Your task to perform on an android device: delete location history Image 0: 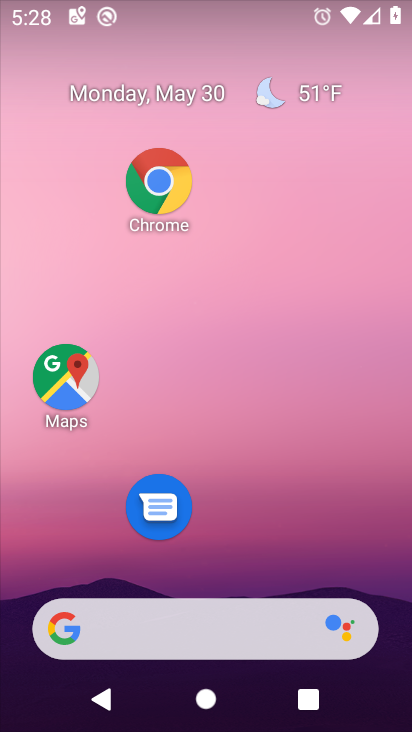
Step 0: drag from (356, 537) to (206, 3)
Your task to perform on an android device: delete location history Image 1: 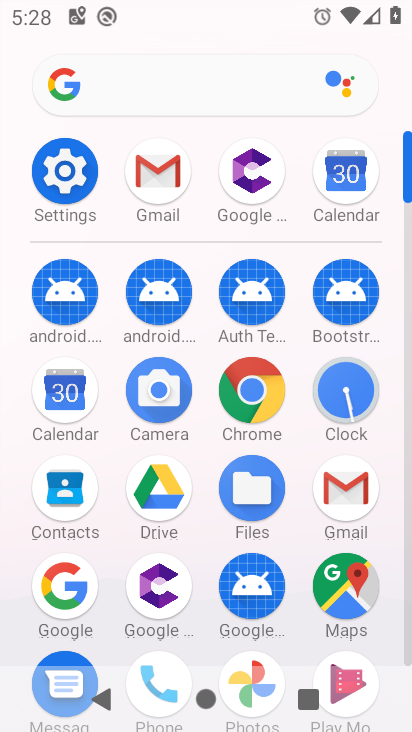
Step 1: click (406, 553)
Your task to perform on an android device: delete location history Image 2: 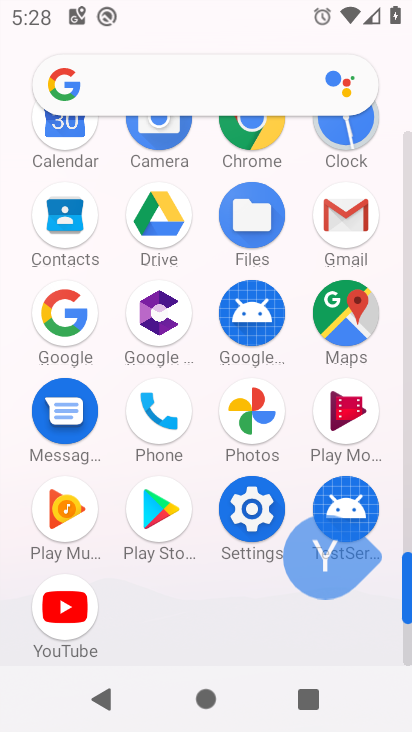
Step 2: click (406, 553)
Your task to perform on an android device: delete location history Image 3: 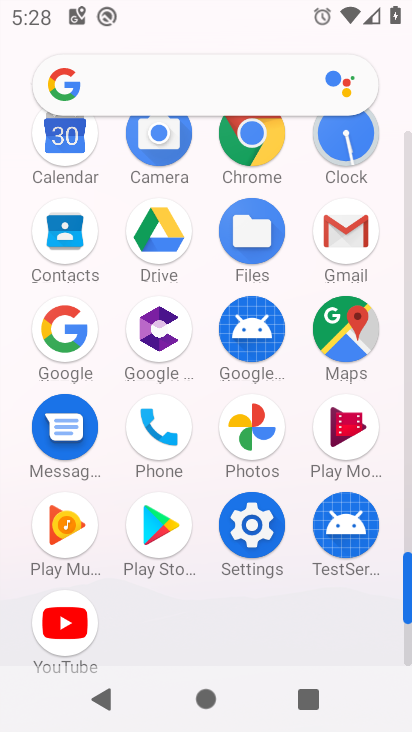
Step 3: click (368, 324)
Your task to perform on an android device: delete location history Image 4: 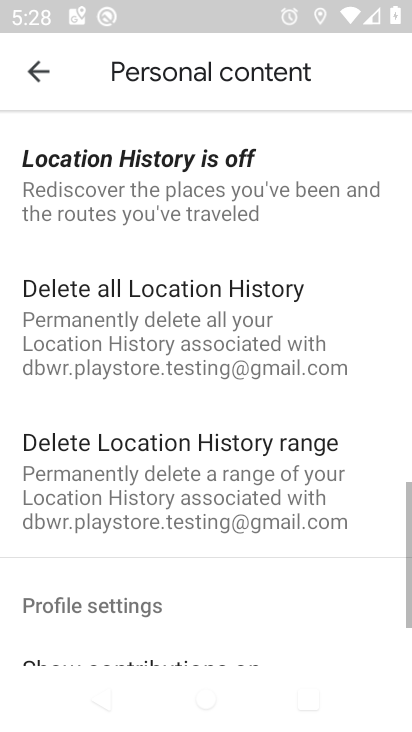
Step 4: click (170, 354)
Your task to perform on an android device: delete location history Image 5: 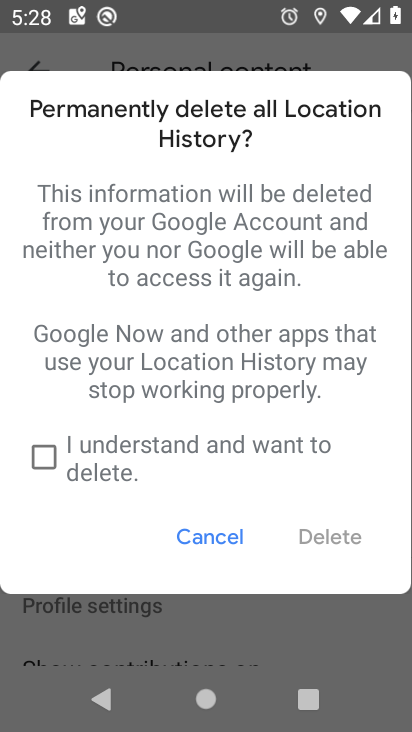
Step 5: click (178, 473)
Your task to perform on an android device: delete location history Image 6: 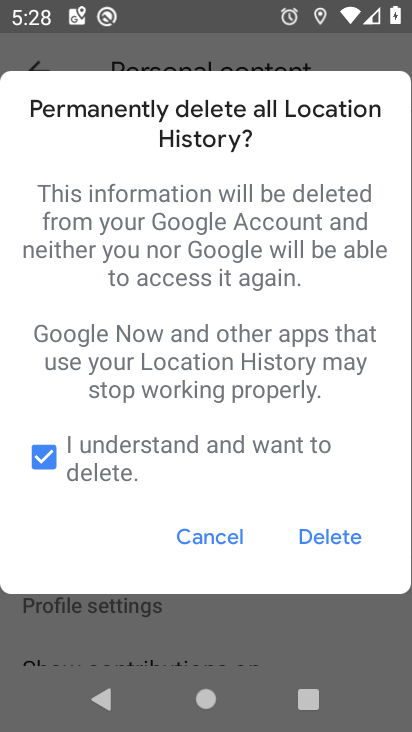
Step 6: click (336, 523)
Your task to perform on an android device: delete location history Image 7: 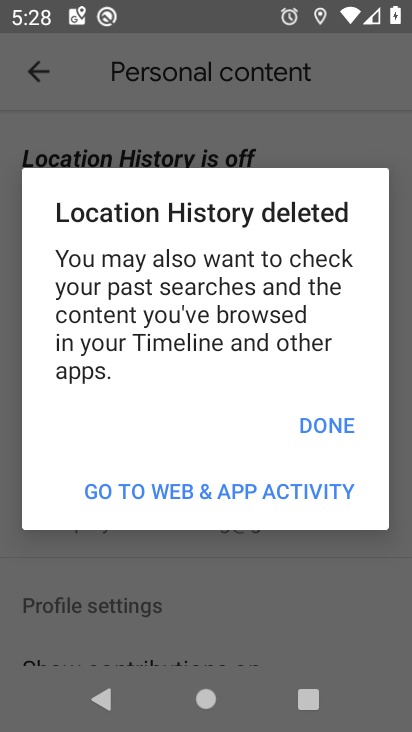
Step 7: click (327, 420)
Your task to perform on an android device: delete location history Image 8: 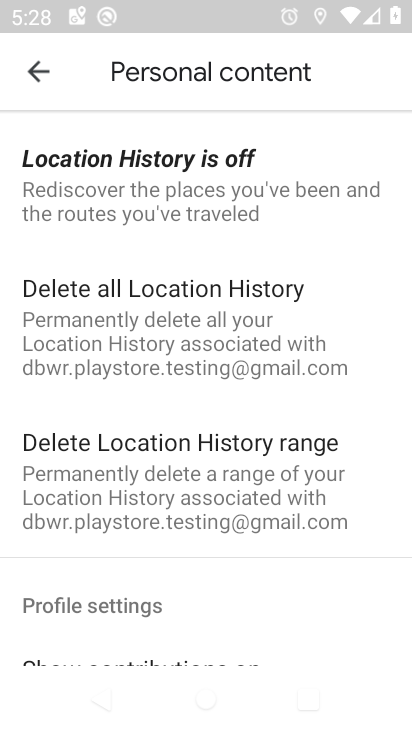
Step 8: task complete